Your task to perform on an android device: Open Maps and search for coffee Image 0: 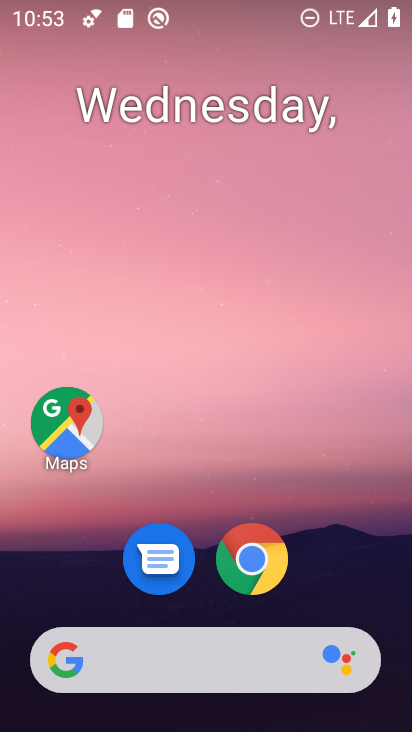
Step 0: drag from (381, 589) to (353, 177)
Your task to perform on an android device: Open Maps and search for coffee Image 1: 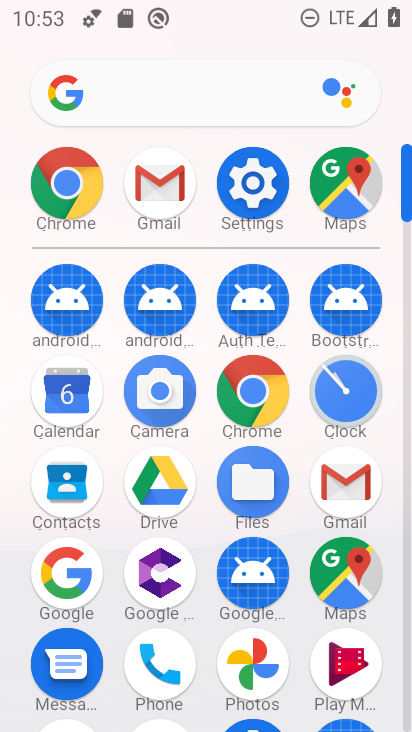
Step 1: click (340, 582)
Your task to perform on an android device: Open Maps and search for coffee Image 2: 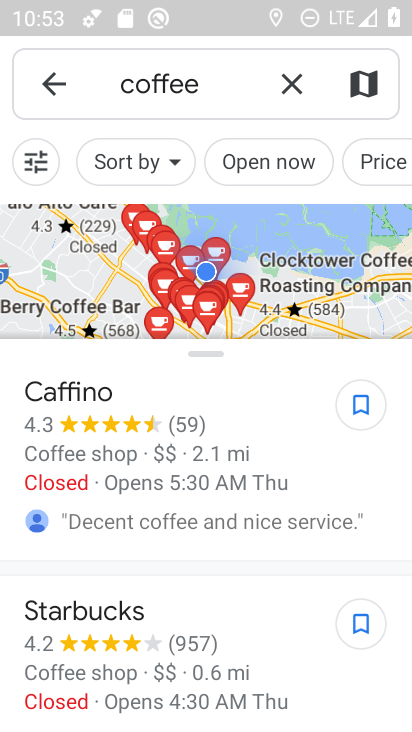
Step 2: task complete